Your task to perform on an android device: Search for seafood restaurants on Google Maps Image 0: 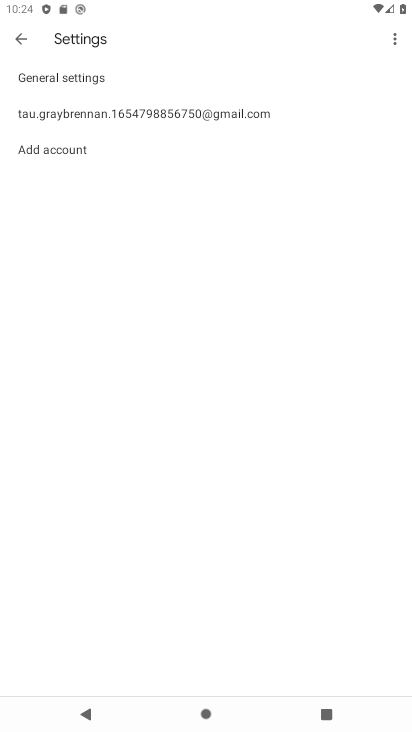
Step 0: press home button
Your task to perform on an android device: Search for seafood restaurants on Google Maps Image 1: 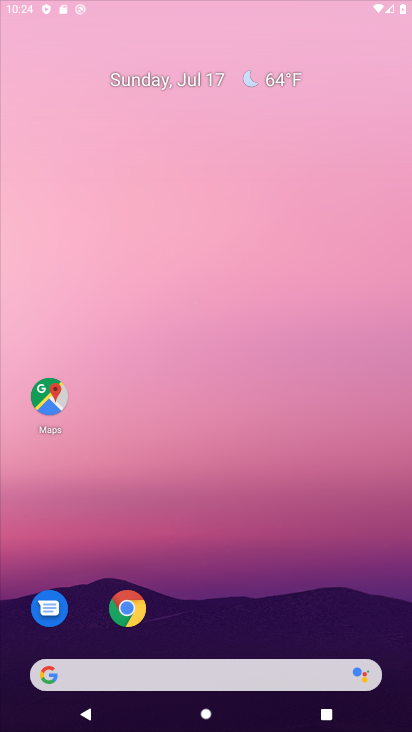
Step 1: drag from (333, 509) to (263, 31)
Your task to perform on an android device: Search for seafood restaurants on Google Maps Image 2: 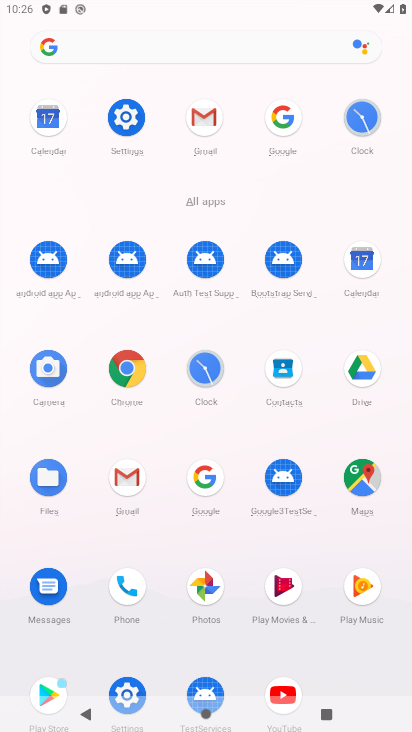
Step 2: click (354, 483)
Your task to perform on an android device: Search for seafood restaurants on Google Maps Image 3: 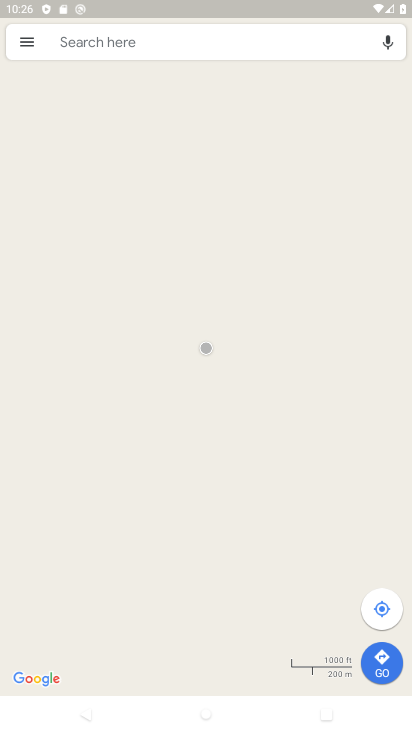
Step 3: click (136, 47)
Your task to perform on an android device: Search for seafood restaurants on Google Maps Image 4: 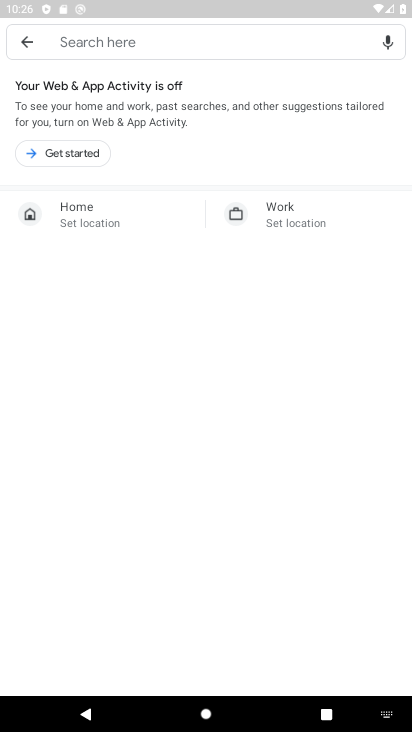
Step 4: click (45, 150)
Your task to perform on an android device: Search for seafood restaurants on Google Maps Image 5: 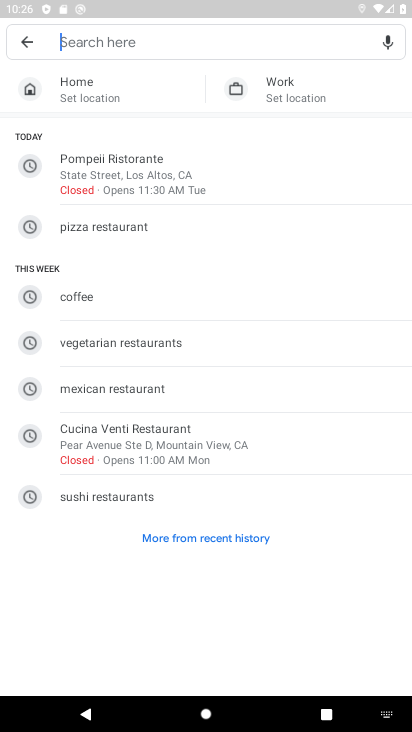
Step 5: type "seafood restaurants"
Your task to perform on an android device: Search for seafood restaurants on Google Maps Image 6: 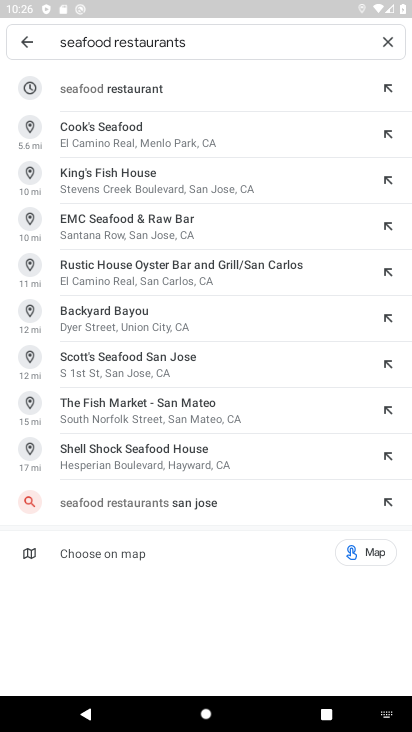
Step 6: click (113, 90)
Your task to perform on an android device: Search for seafood restaurants on Google Maps Image 7: 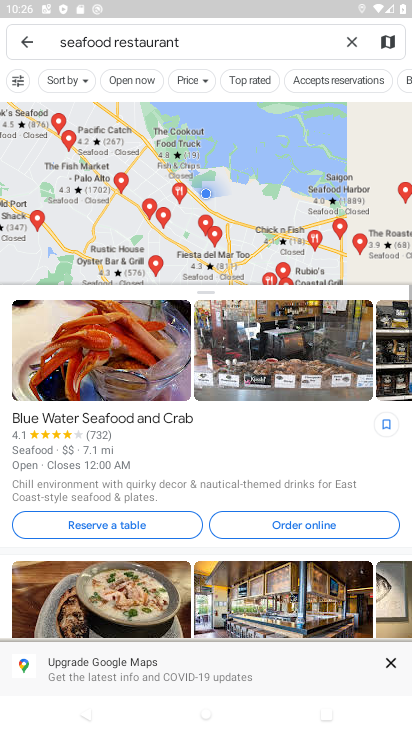
Step 7: task complete